Your task to perform on an android device: install app "Cash App" Image 0: 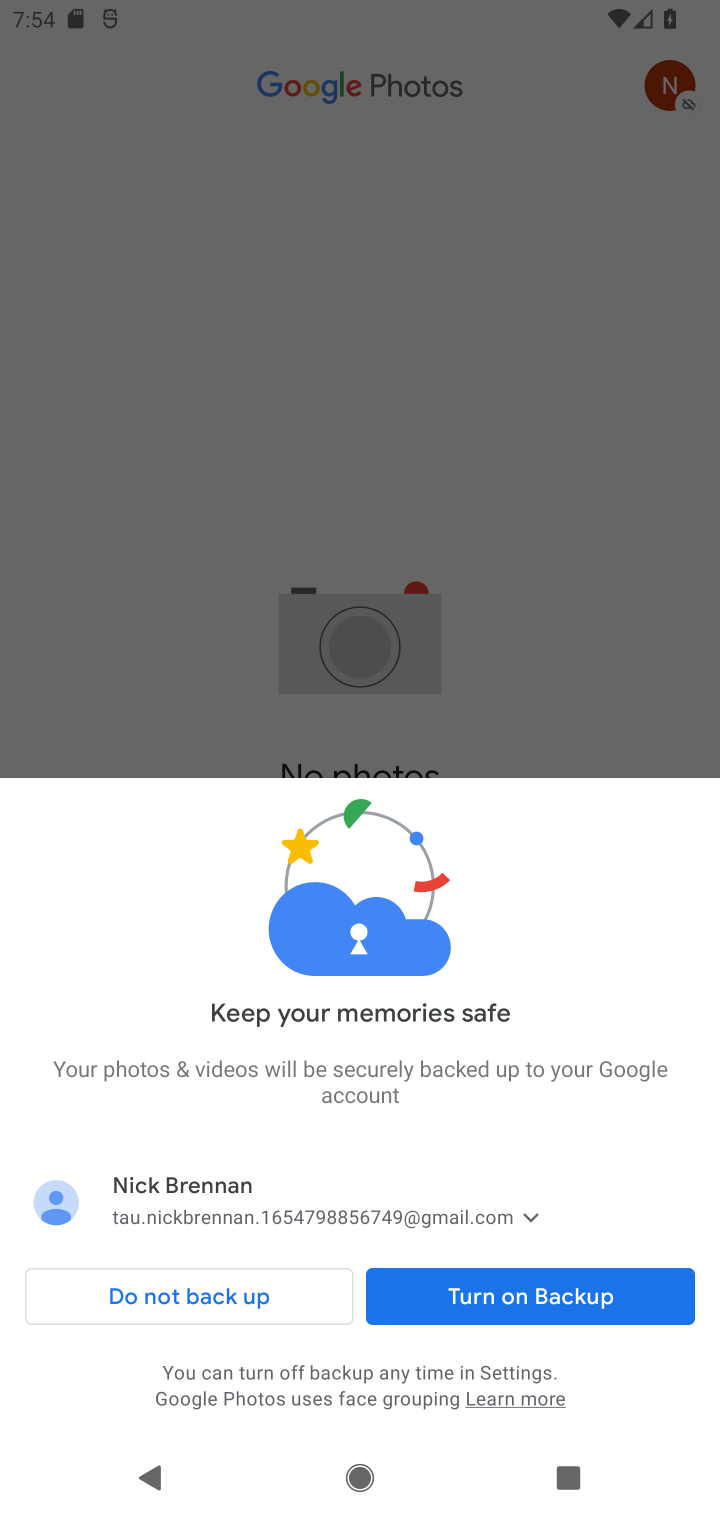
Step 0: press home button
Your task to perform on an android device: install app "Cash App" Image 1: 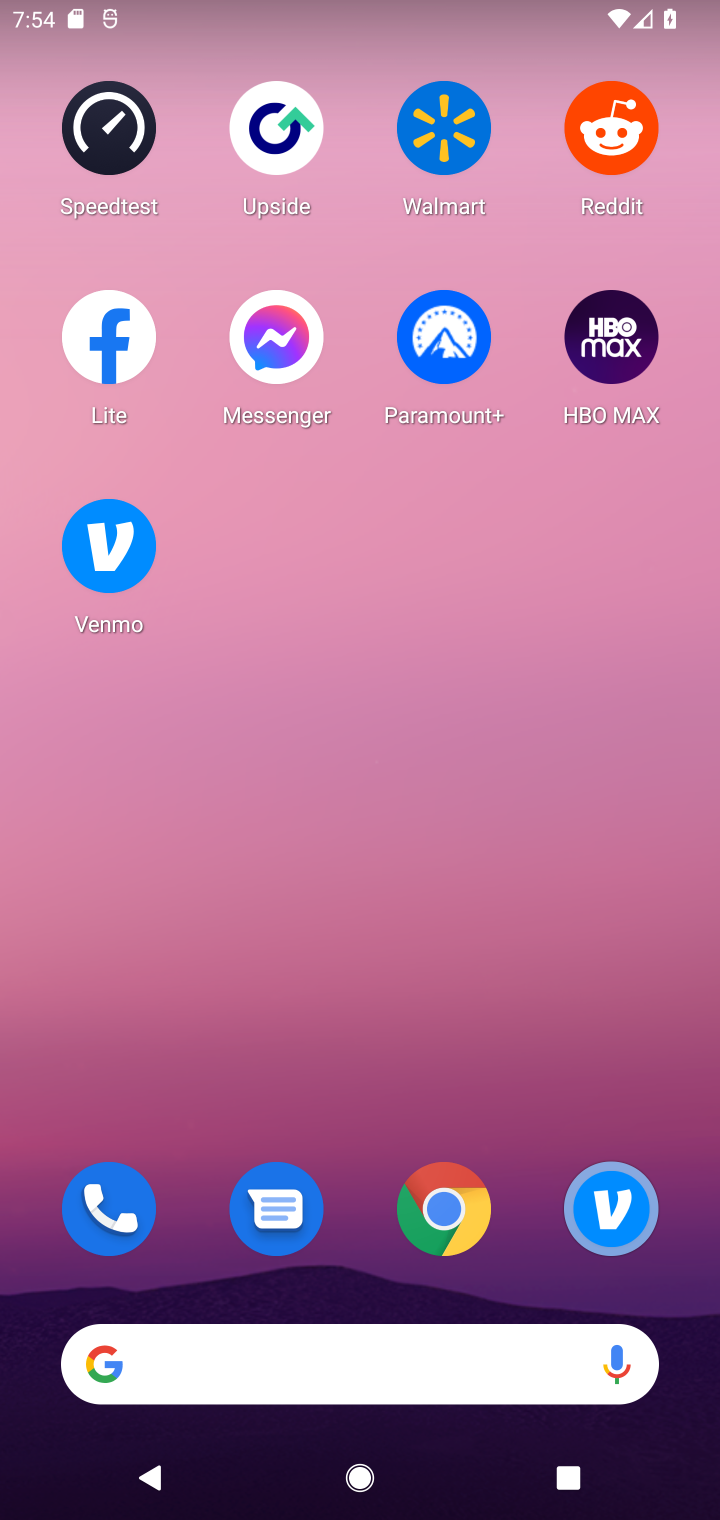
Step 1: drag from (366, 1019) to (379, 35)
Your task to perform on an android device: install app "Cash App" Image 2: 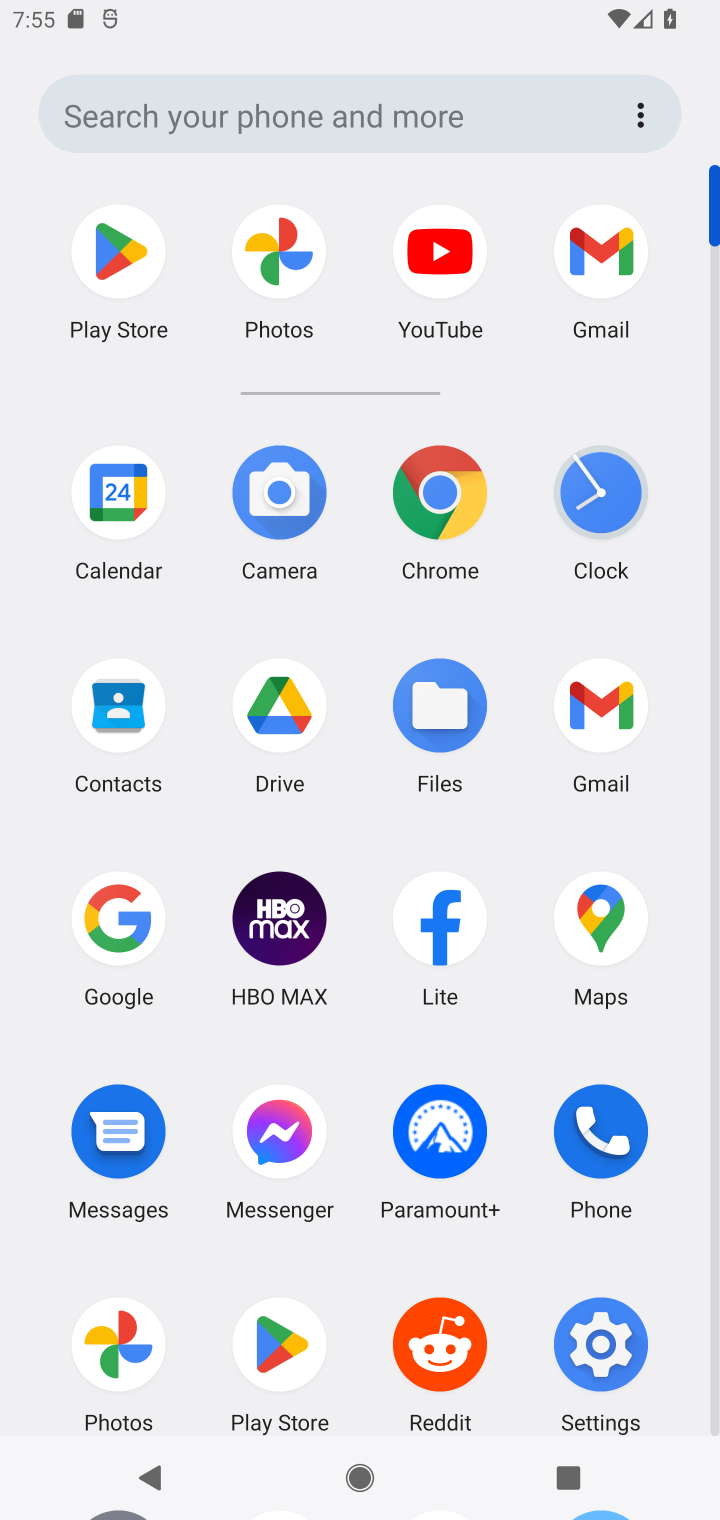
Step 2: click (119, 259)
Your task to perform on an android device: install app "Cash App" Image 3: 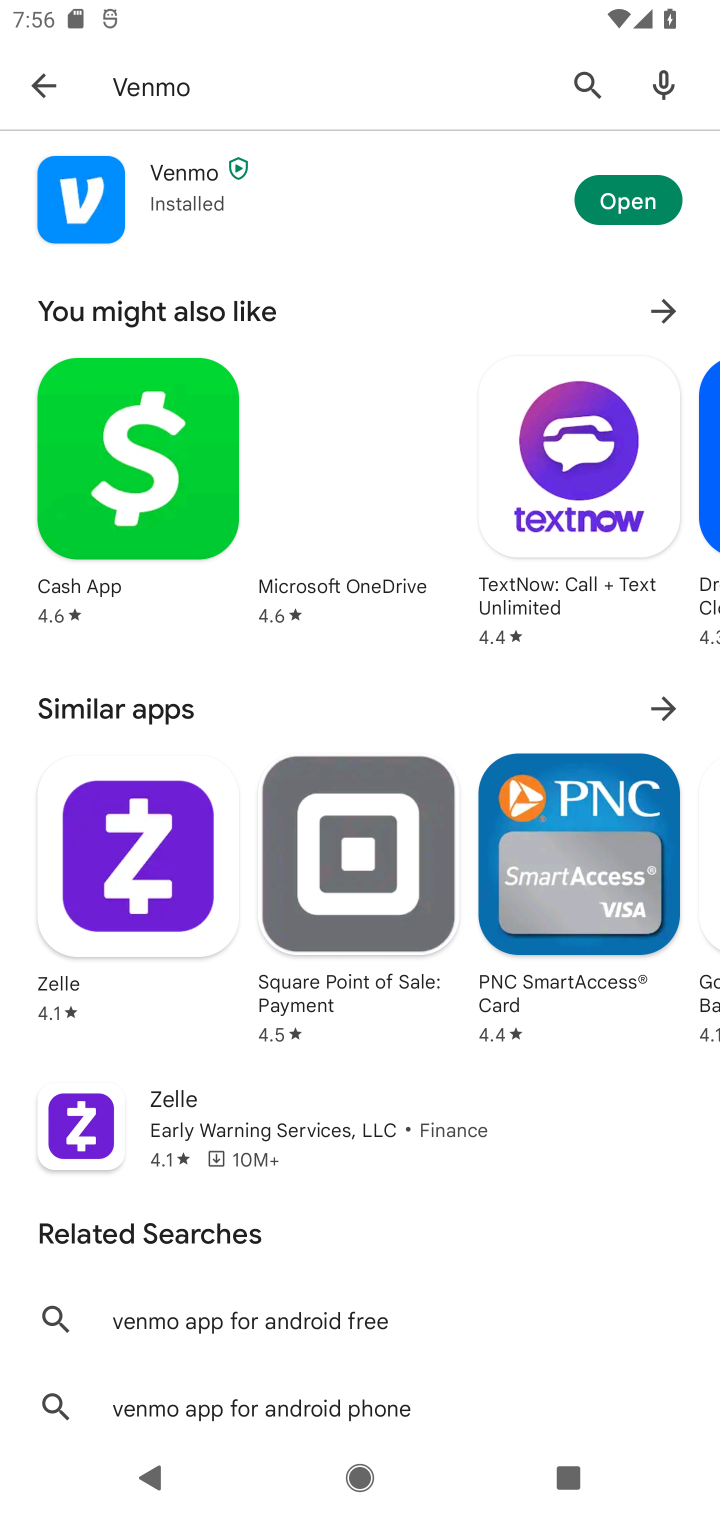
Step 3: press back button
Your task to perform on an android device: install app "Cash App" Image 4: 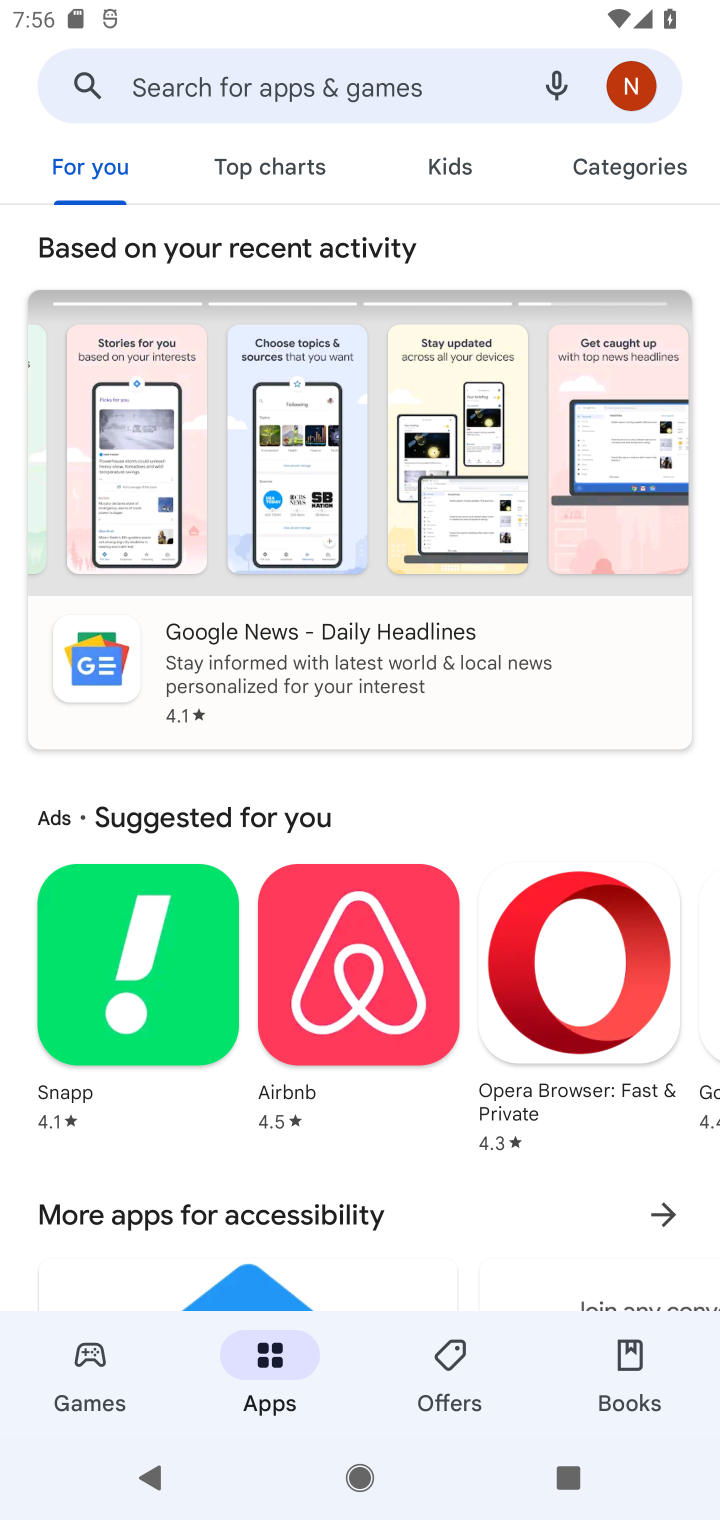
Step 4: click (250, 93)
Your task to perform on an android device: install app "Cash App" Image 5: 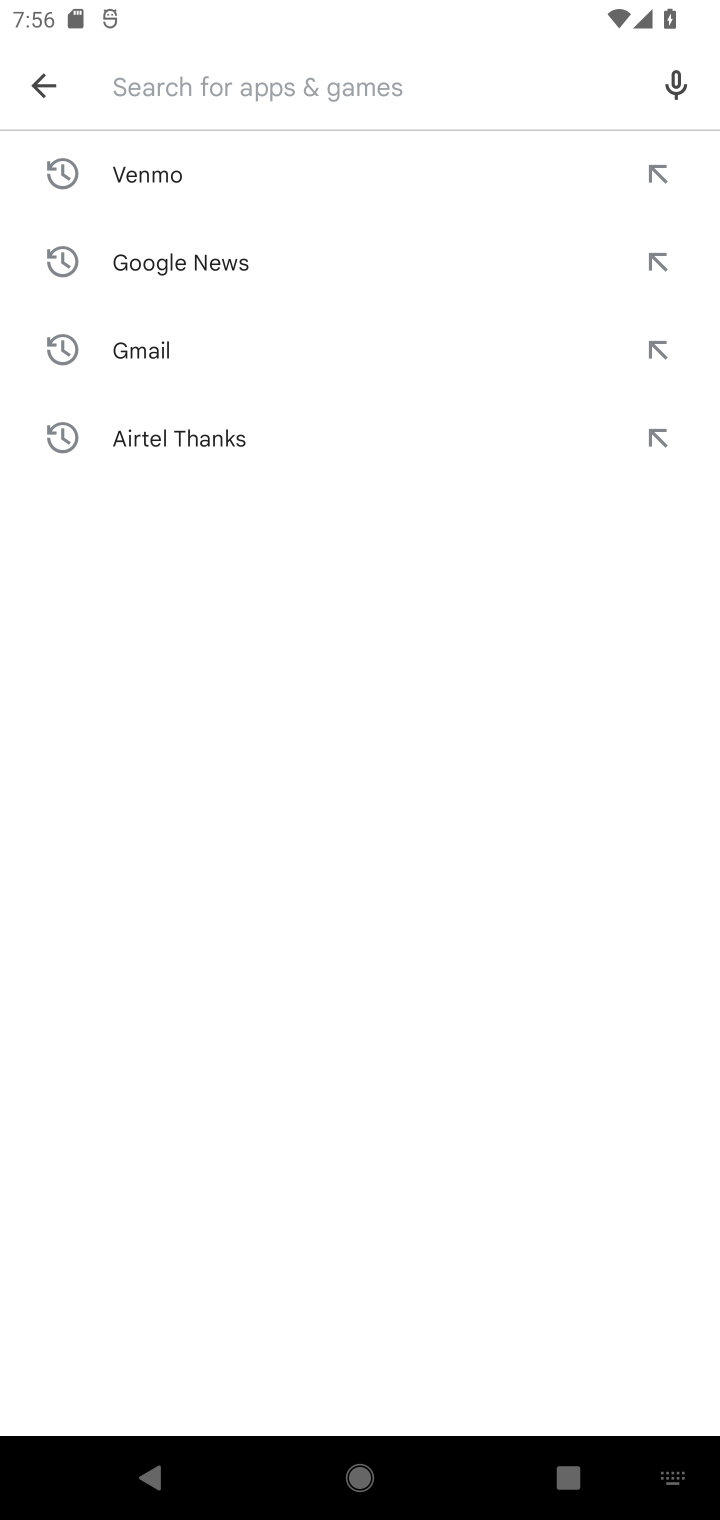
Step 5: type "Cash App"
Your task to perform on an android device: install app "Cash App" Image 6: 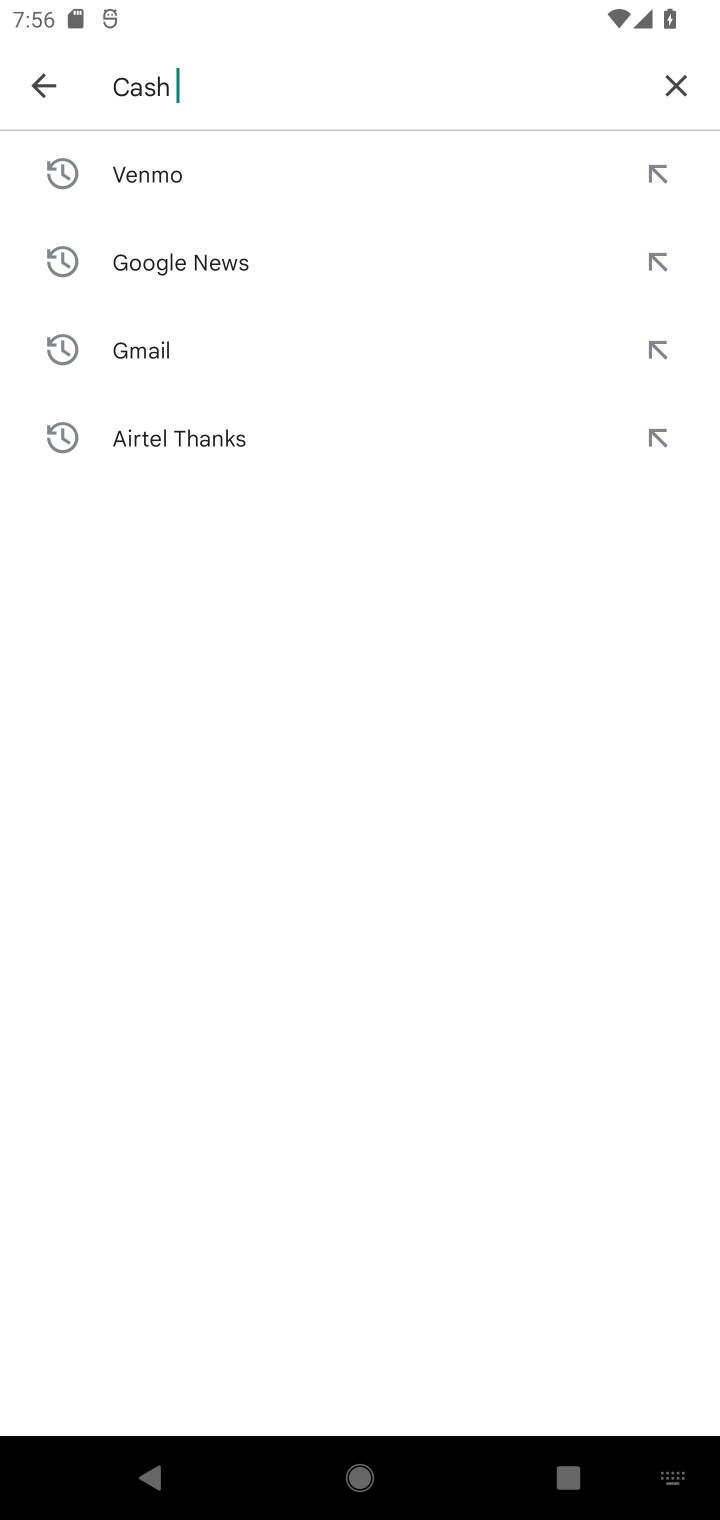
Step 6: press enter
Your task to perform on an android device: install app "Cash App" Image 7: 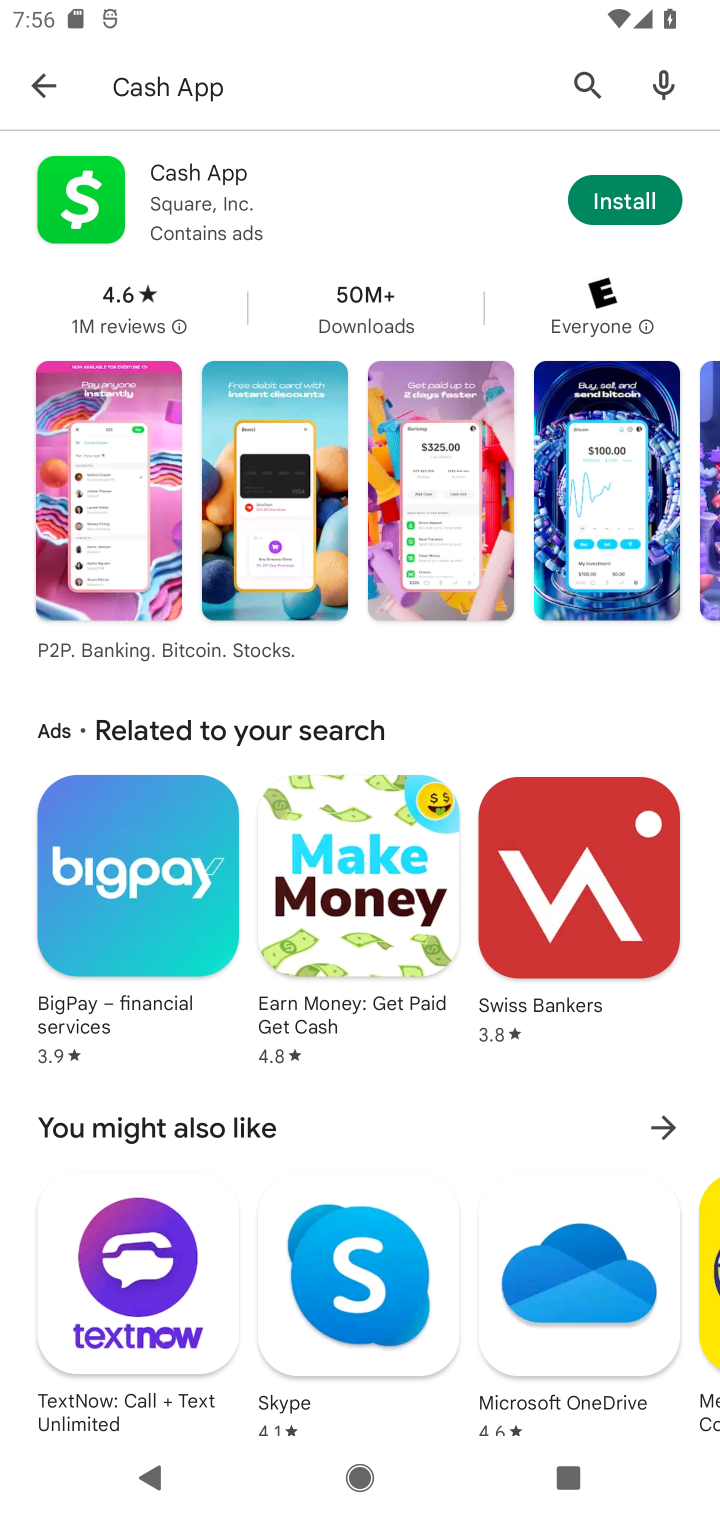
Step 7: click (634, 195)
Your task to perform on an android device: install app "Cash App" Image 8: 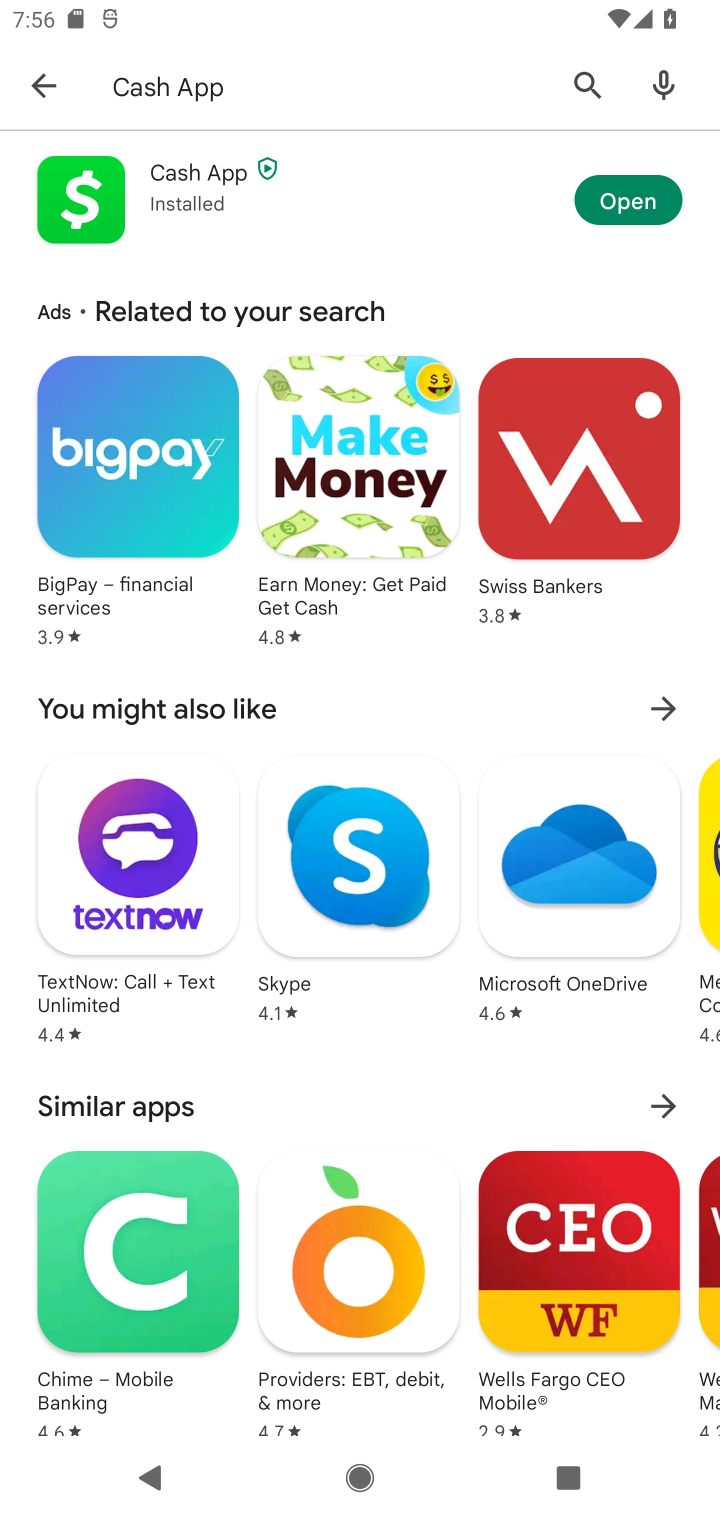
Step 8: click (639, 190)
Your task to perform on an android device: install app "Cash App" Image 9: 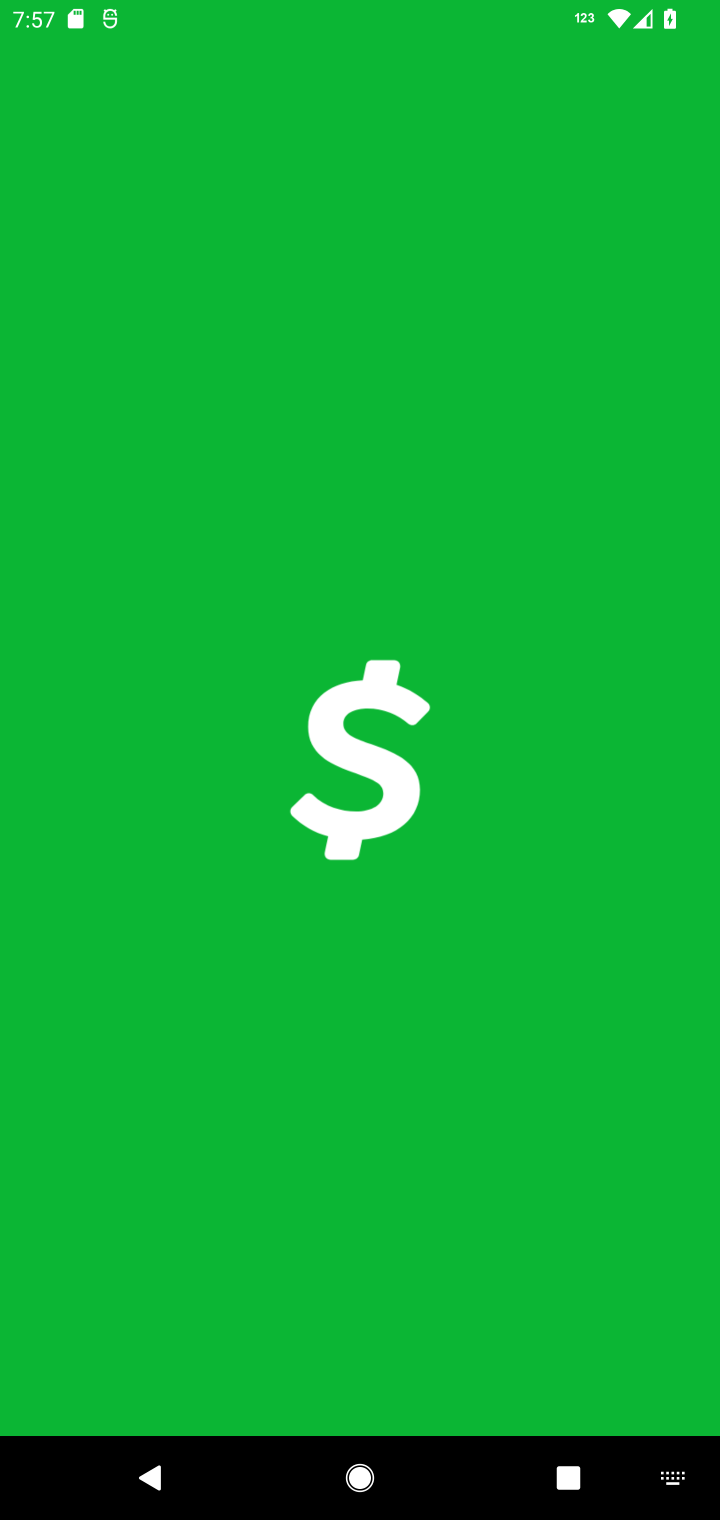
Step 9: task complete